Your task to perform on an android device: Open calendar and show me the third week of next month Image 0: 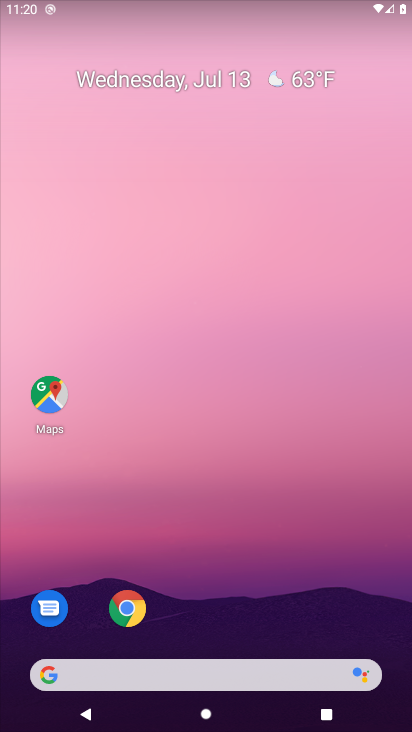
Step 0: press home button
Your task to perform on an android device: Open calendar and show me the third week of next month Image 1: 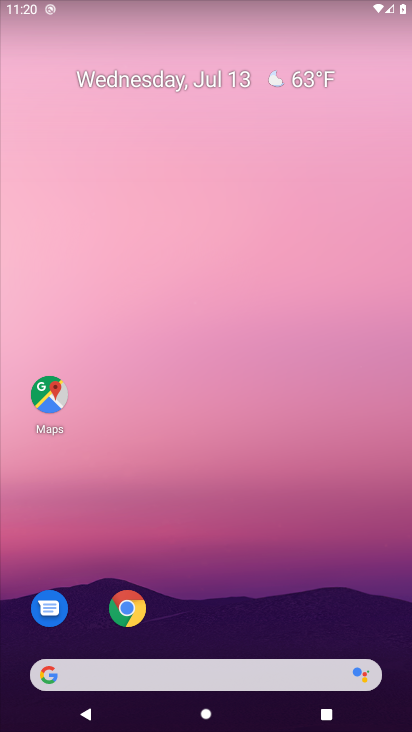
Step 1: drag from (268, 491) to (263, 78)
Your task to perform on an android device: Open calendar and show me the third week of next month Image 2: 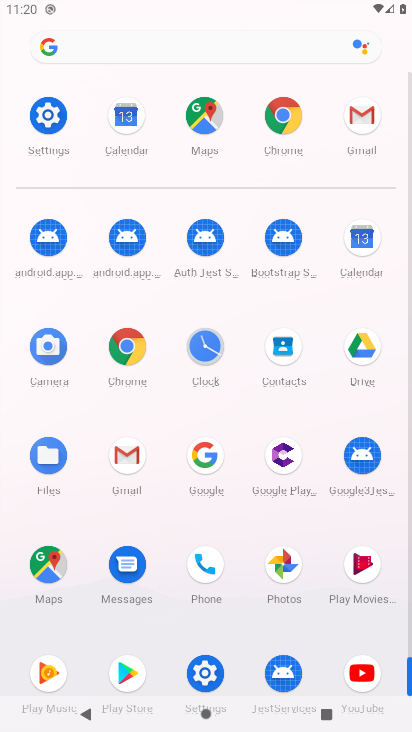
Step 2: click (362, 243)
Your task to perform on an android device: Open calendar and show me the third week of next month Image 3: 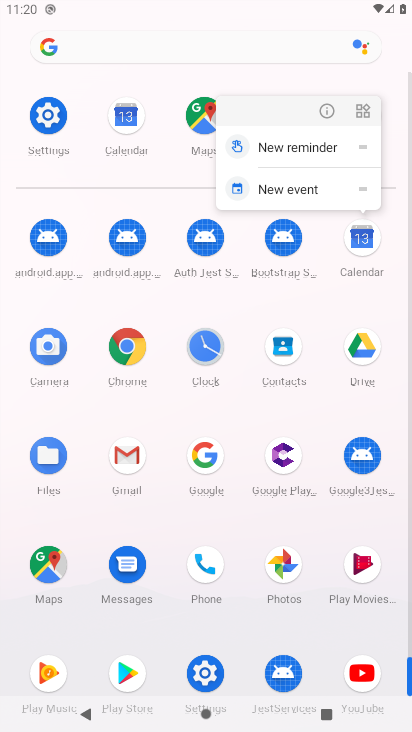
Step 3: click (332, 224)
Your task to perform on an android device: Open calendar and show me the third week of next month Image 4: 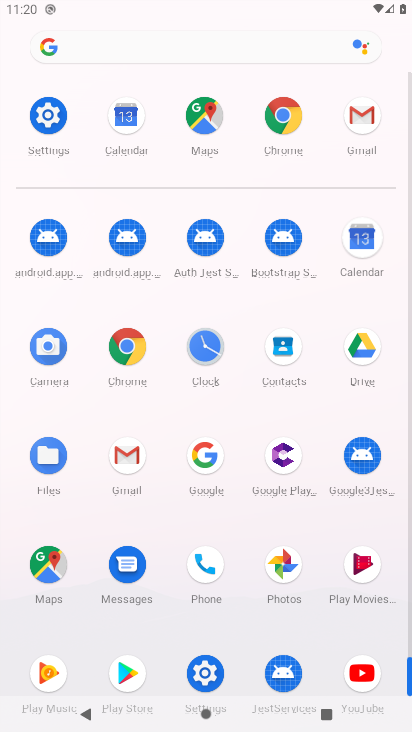
Step 4: click (352, 233)
Your task to perform on an android device: Open calendar and show me the third week of next month Image 5: 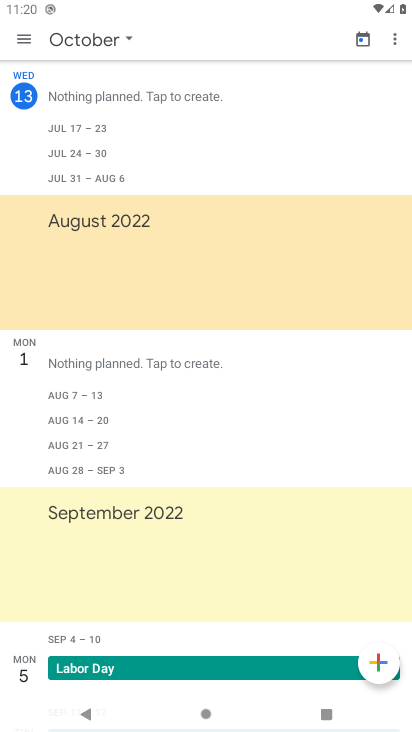
Step 5: click (21, 45)
Your task to perform on an android device: Open calendar and show me the third week of next month Image 6: 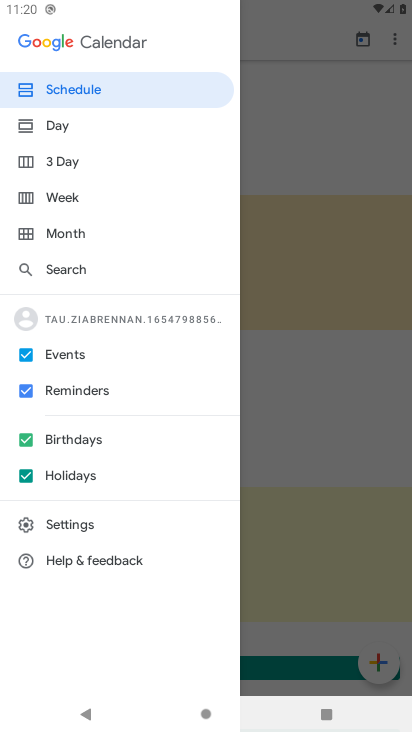
Step 6: click (56, 233)
Your task to perform on an android device: Open calendar and show me the third week of next month Image 7: 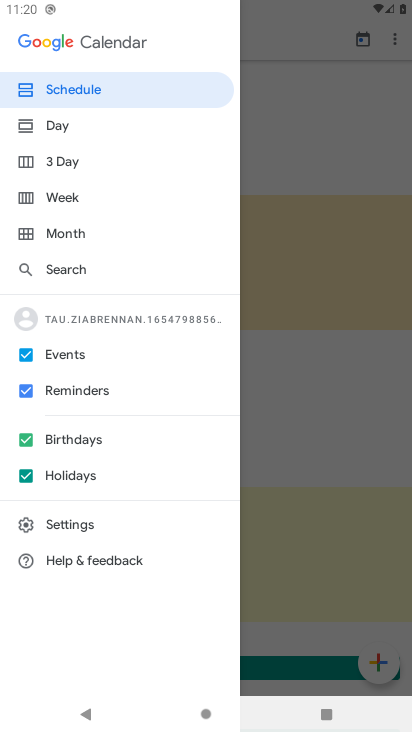
Step 7: click (56, 233)
Your task to perform on an android device: Open calendar and show me the third week of next month Image 8: 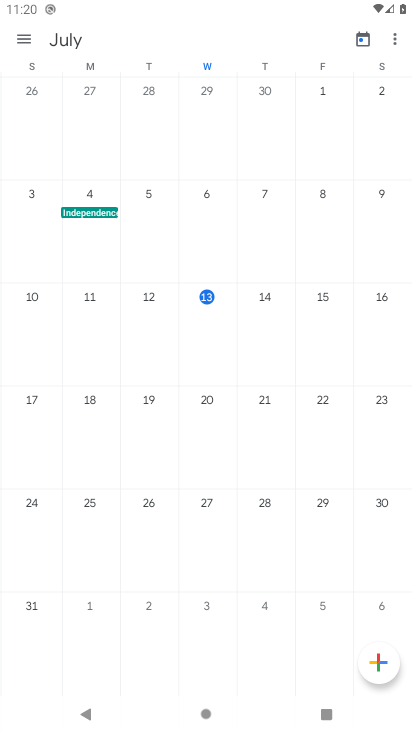
Step 8: task complete